Your task to perform on an android device: Open privacy settings Image 0: 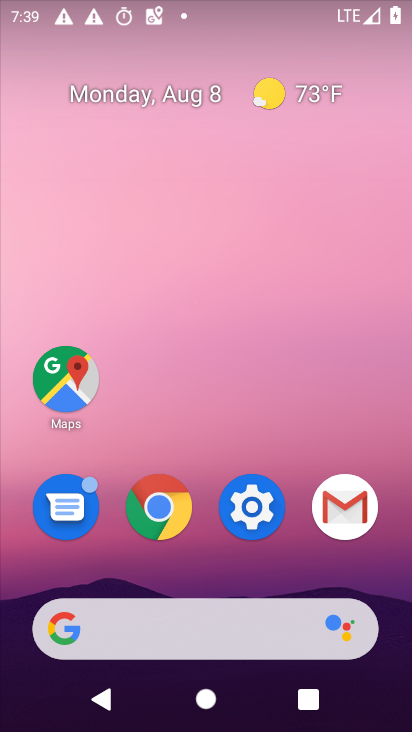
Step 0: drag from (243, 634) to (156, 184)
Your task to perform on an android device: Open privacy settings Image 1: 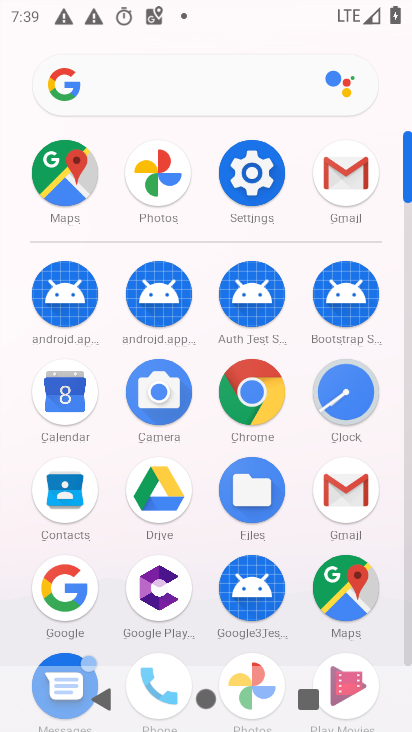
Step 1: click (264, 194)
Your task to perform on an android device: Open privacy settings Image 2: 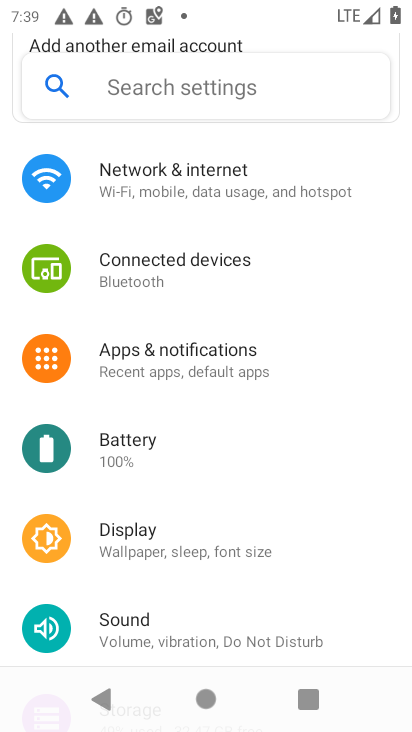
Step 2: drag from (162, 560) to (191, 336)
Your task to perform on an android device: Open privacy settings Image 3: 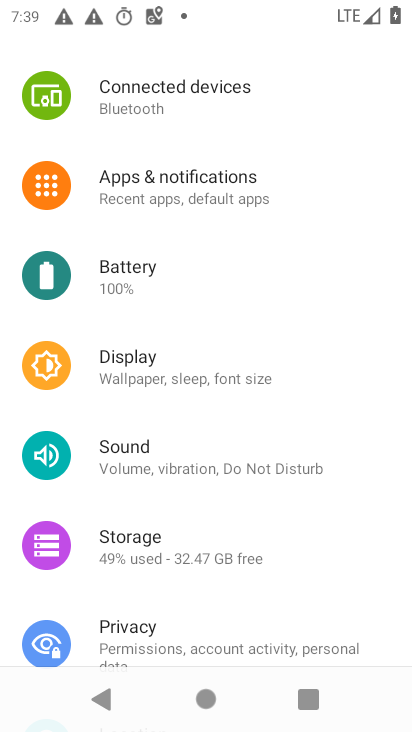
Step 3: click (150, 625)
Your task to perform on an android device: Open privacy settings Image 4: 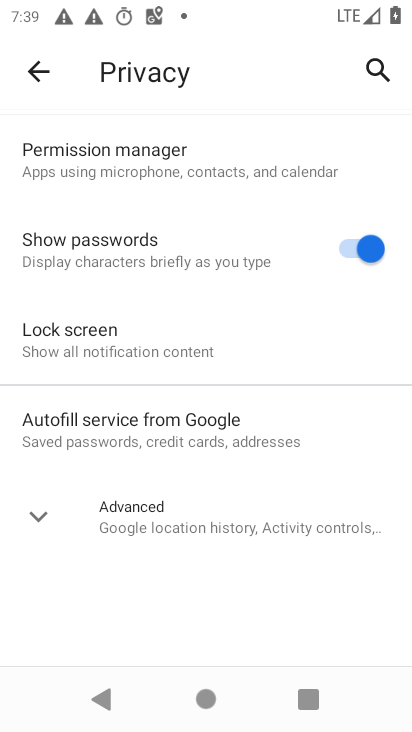
Step 4: task complete